Your task to perform on an android device: change keyboard looks Image 0: 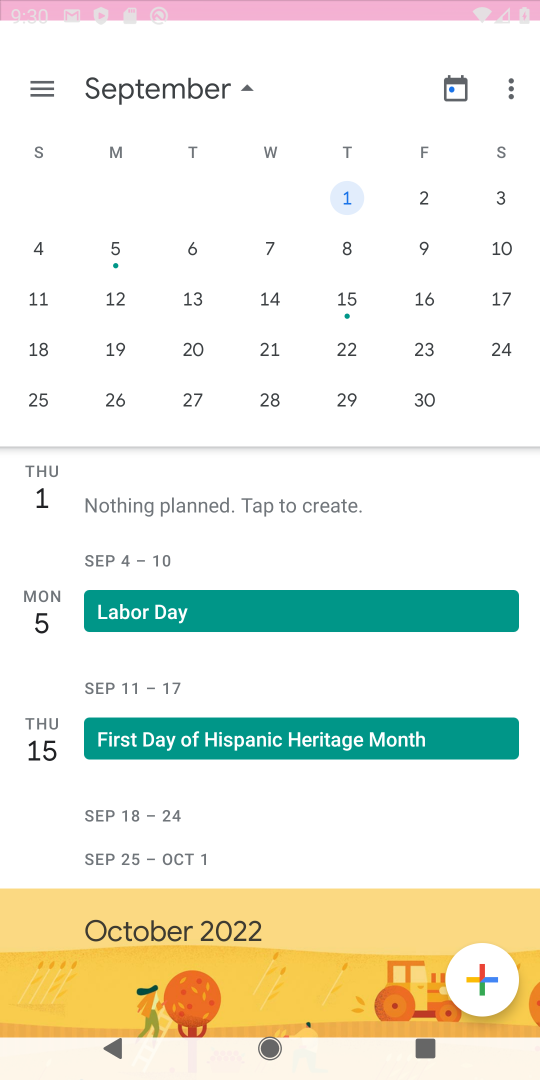
Step 0: press home button
Your task to perform on an android device: change keyboard looks Image 1: 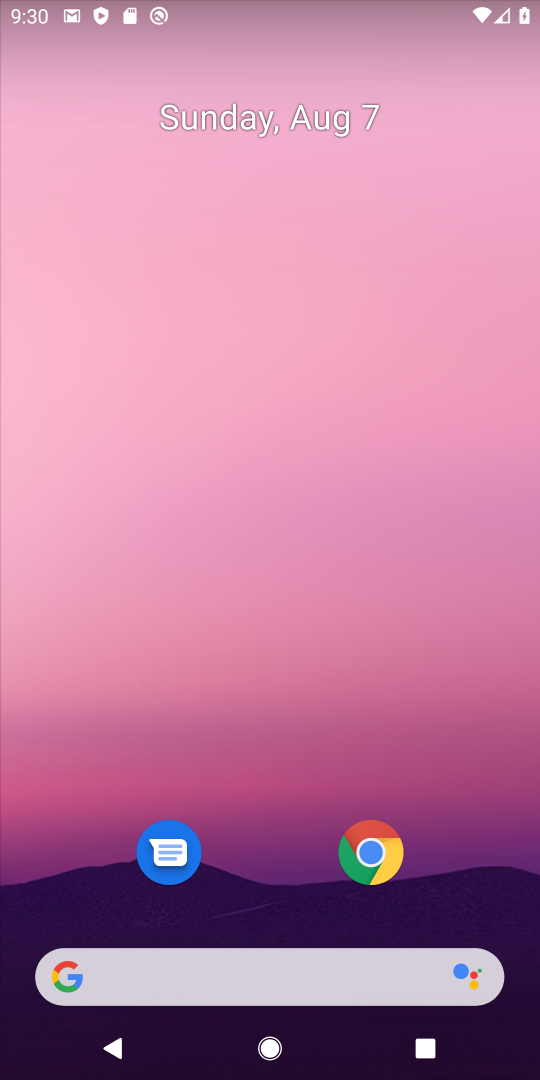
Step 1: drag from (281, 843) to (246, 513)
Your task to perform on an android device: change keyboard looks Image 2: 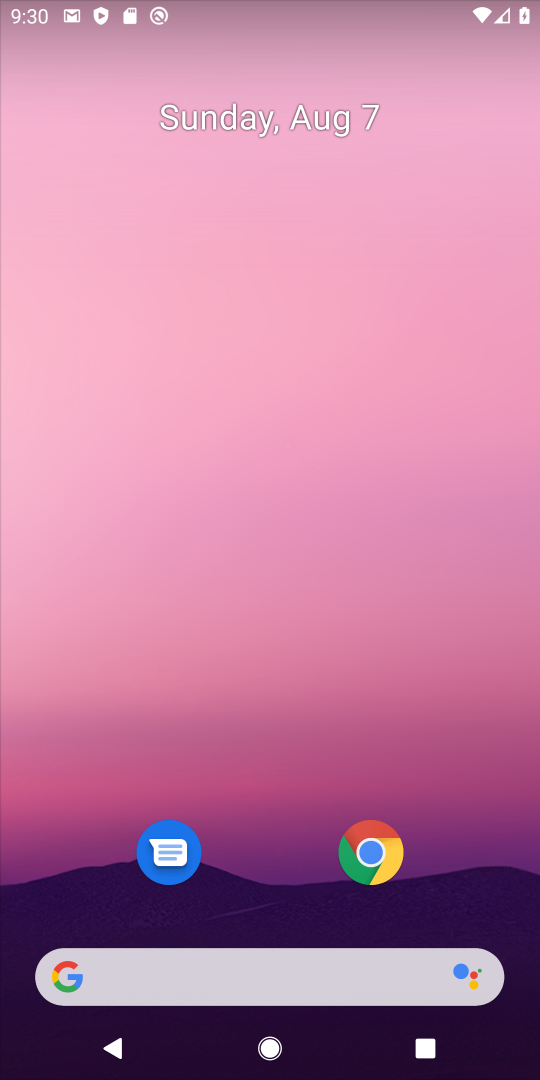
Step 2: drag from (348, 710) to (303, 347)
Your task to perform on an android device: change keyboard looks Image 3: 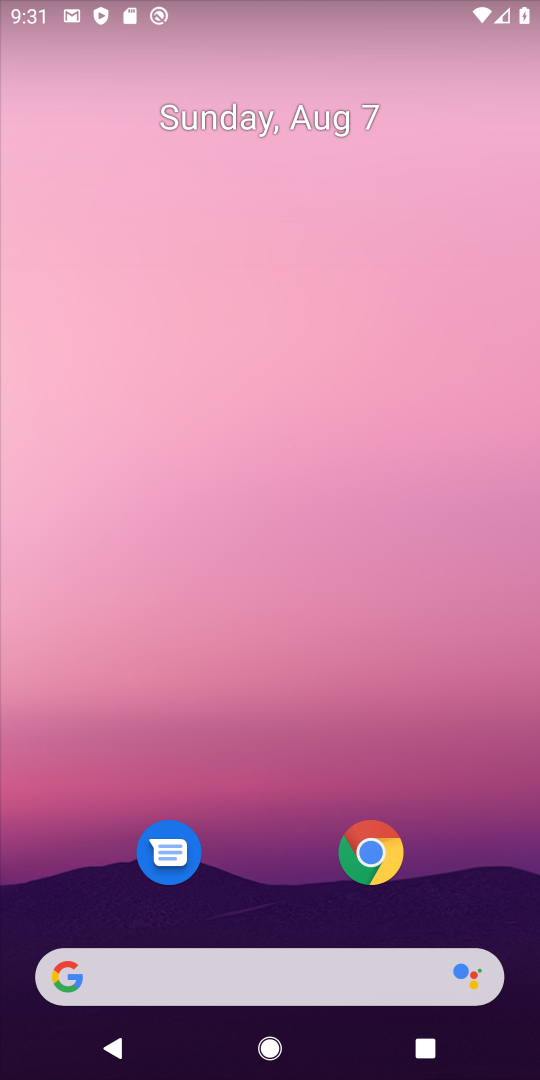
Step 3: drag from (256, 887) to (218, 164)
Your task to perform on an android device: change keyboard looks Image 4: 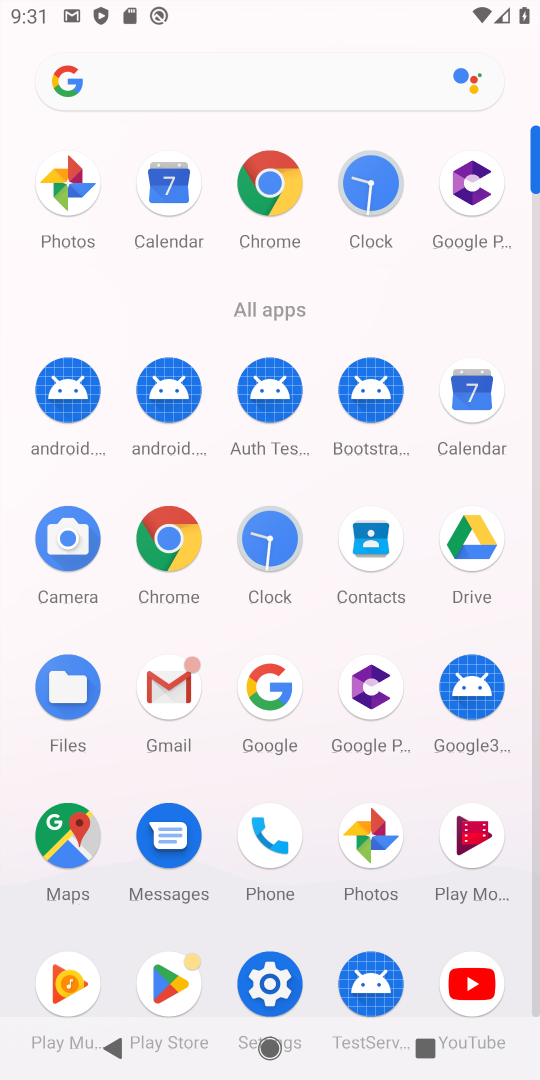
Step 4: click (261, 983)
Your task to perform on an android device: change keyboard looks Image 5: 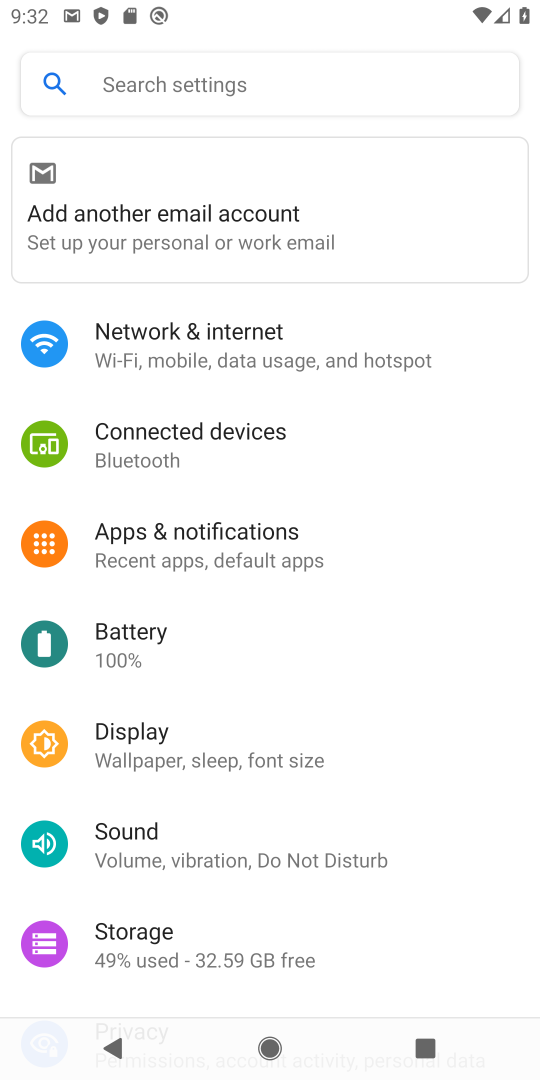
Step 5: drag from (286, 856) to (276, 641)
Your task to perform on an android device: change keyboard looks Image 6: 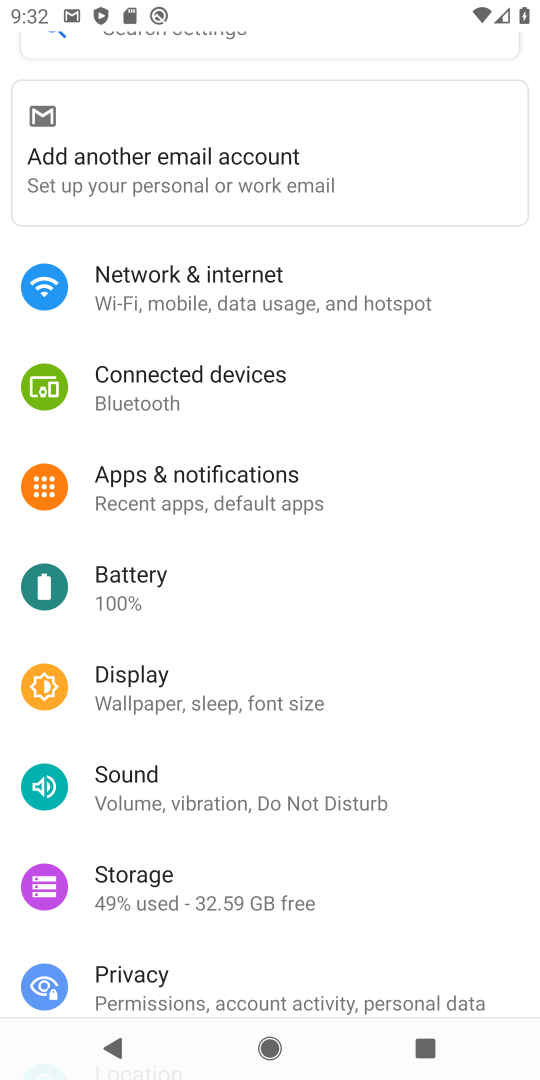
Step 6: drag from (194, 917) to (201, 304)
Your task to perform on an android device: change keyboard looks Image 7: 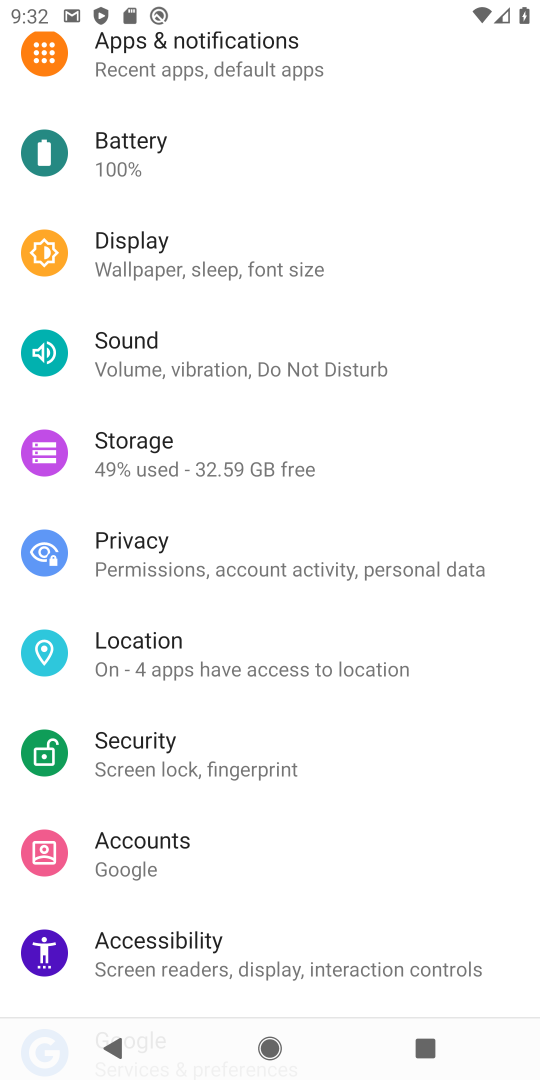
Step 7: drag from (205, 948) to (196, 651)
Your task to perform on an android device: change keyboard looks Image 8: 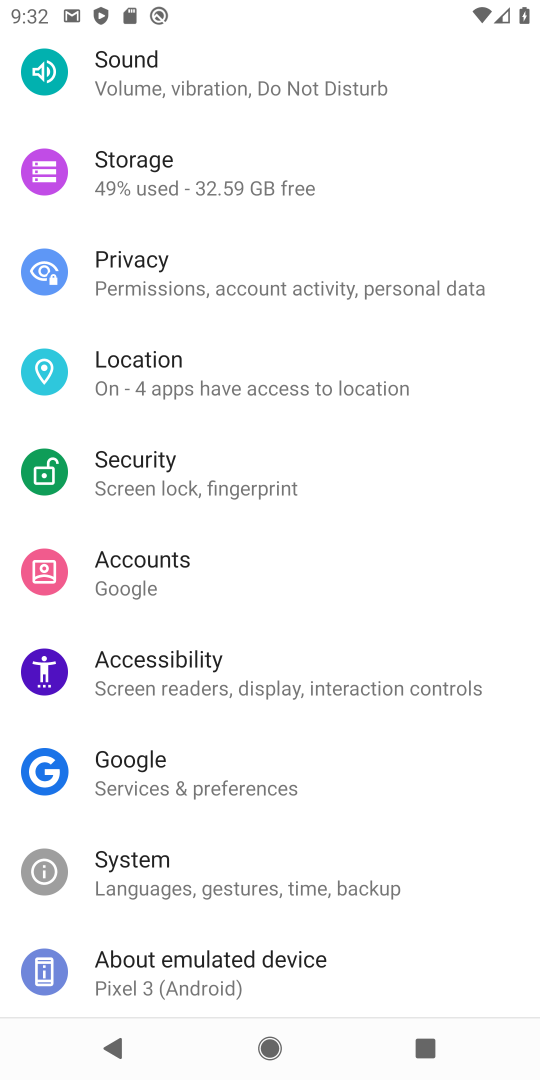
Step 8: drag from (180, 969) to (169, 311)
Your task to perform on an android device: change keyboard looks Image 9: 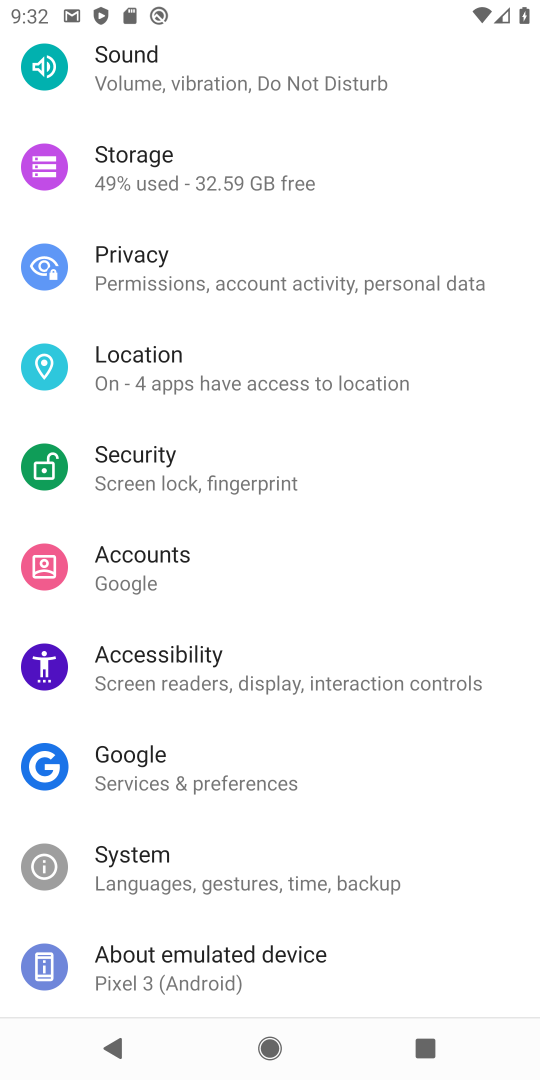
Step 9: click (229, 978)
Your task to perform on an android device: change keyboard looks Image 10: 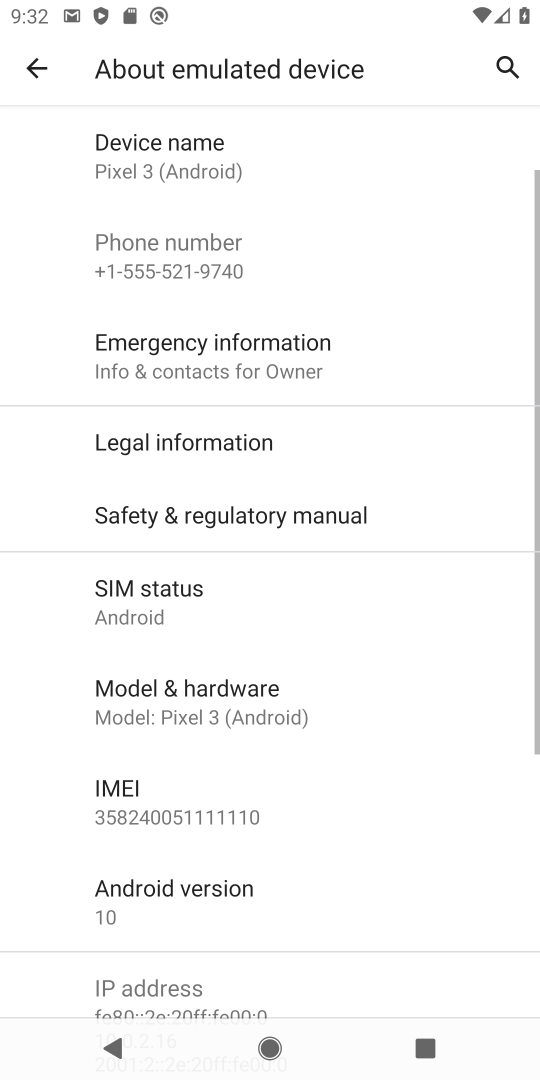
Step 10: press back button
Your task to perform on an android device: change keyboard looks Image 11: 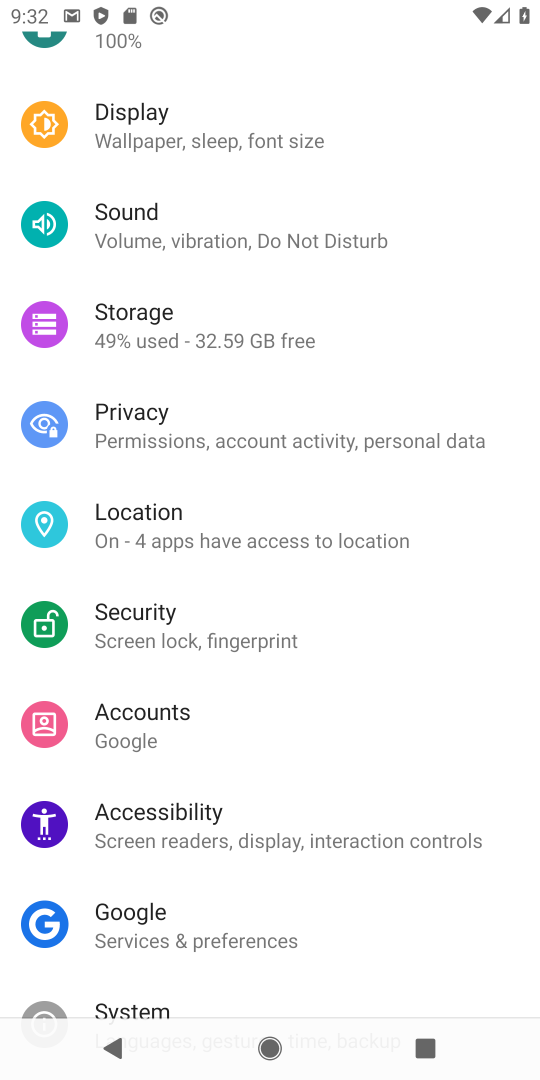
Step 11: drag from (170, 958) to (165, 792)
Your task to perform on an android device: change keyboard looks Image 12: 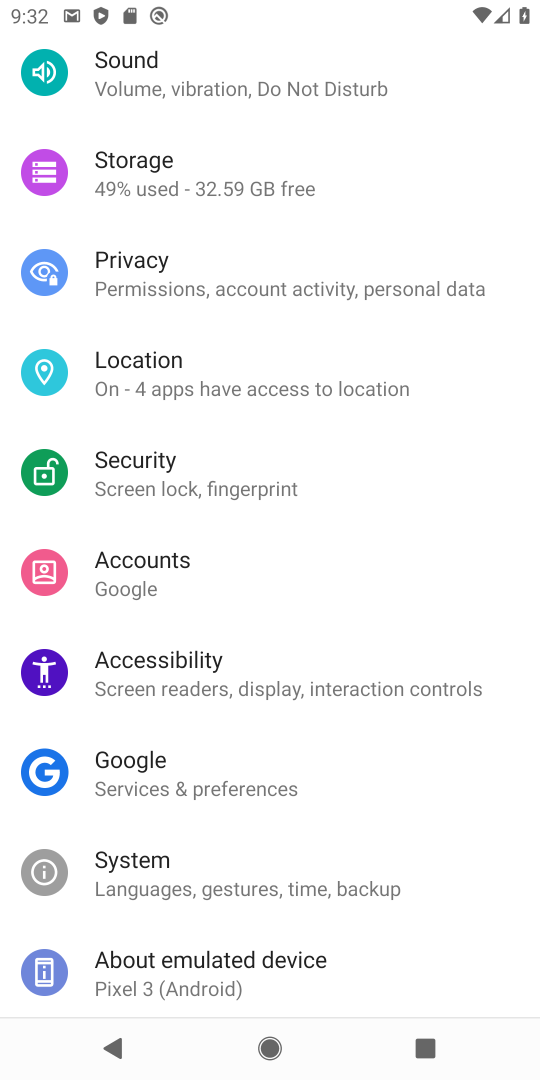
Step 12: click (160, 864)
Your task to perform on an android device: change keyboard looks Image 13: 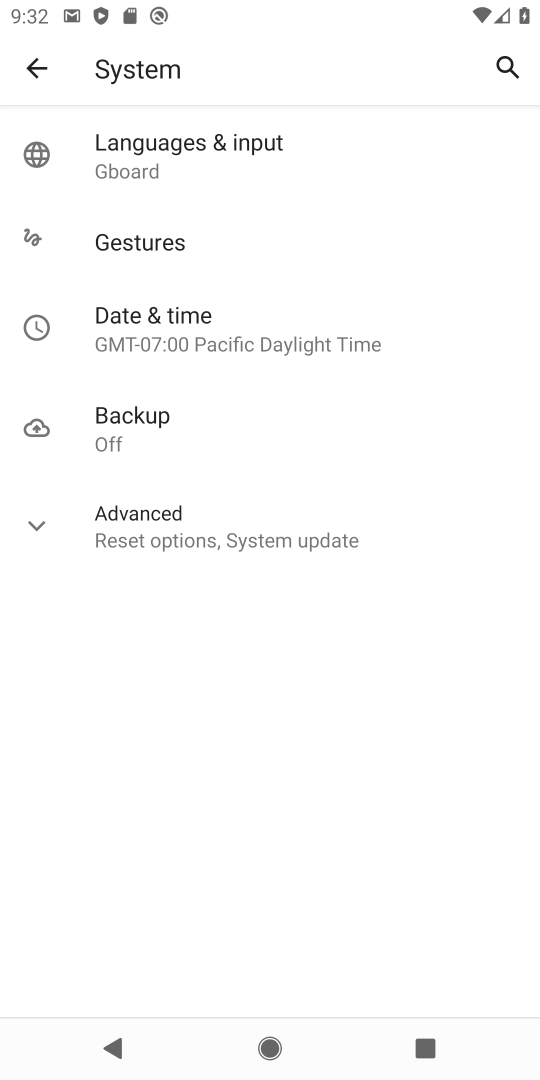
Step 13: click (196, 160)
Your task to perform on an android device: change keyboard looks Image 14: 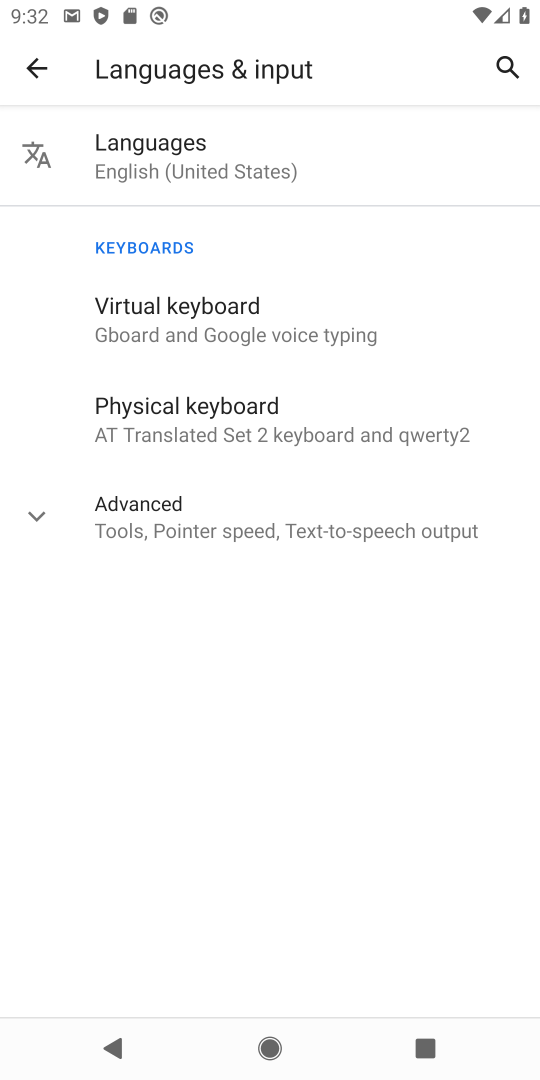
Step 14: click (191, 336)
Your task to perform on an android device: change keyboard looks Image 15: 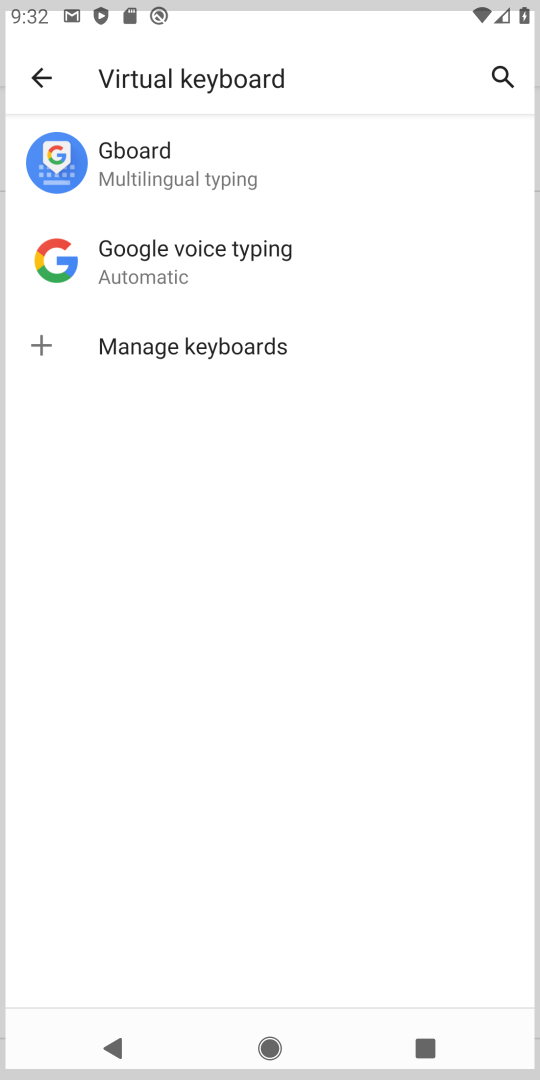
Step 15: click (191, 141)
Your task to perform on an android device: change keyboard looks Image 16: 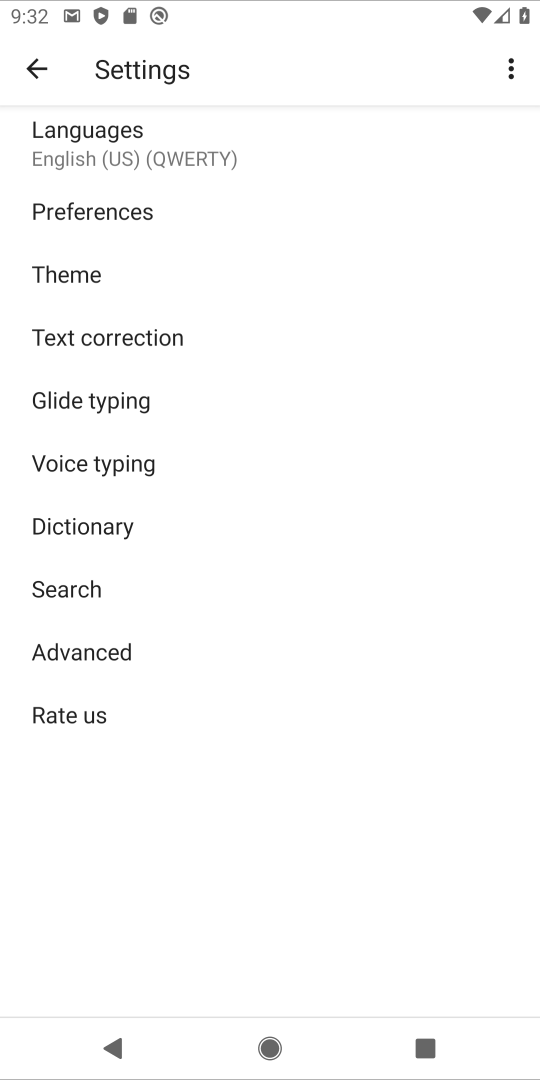
Step 16: click (188, 267)
Your task to perform on an android device: change keyboard looks Image 17: 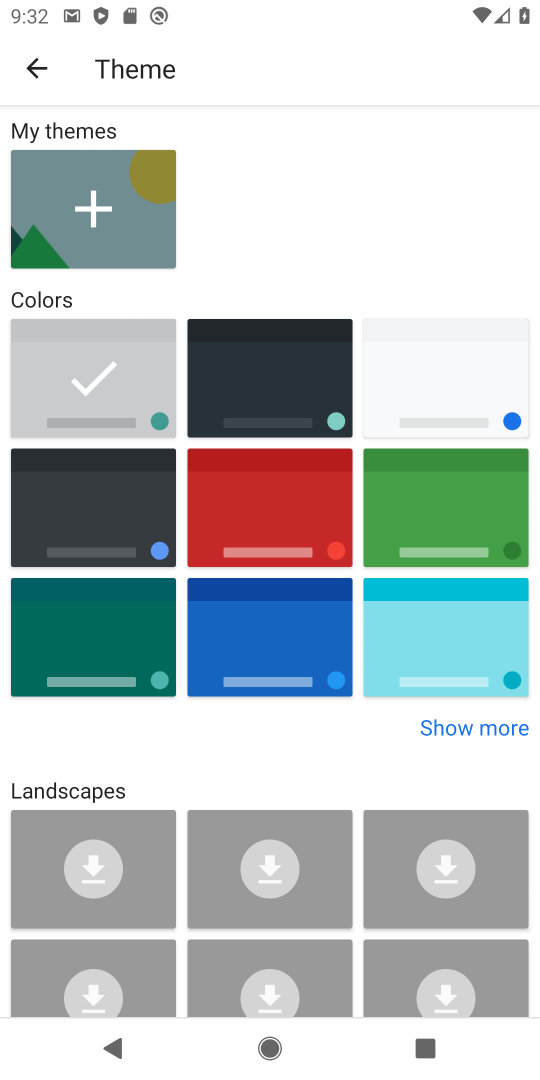
Step 17: click (291, 492)
Your task to perform on an android device: change keyboard looks Image 18: 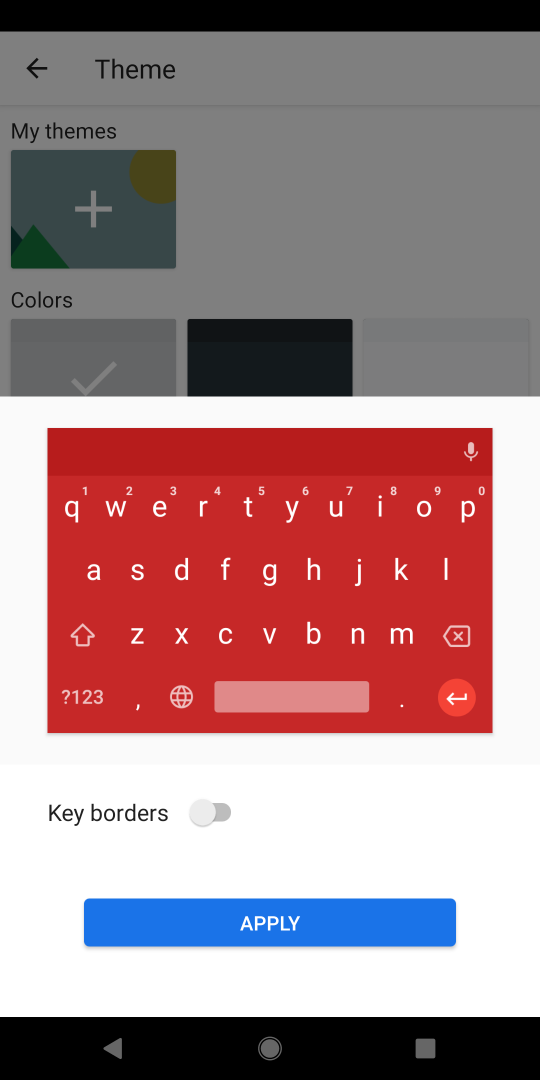
Step 18: click (224, 817)
Your task to perform on an android device: change keyboard looks Image 19: 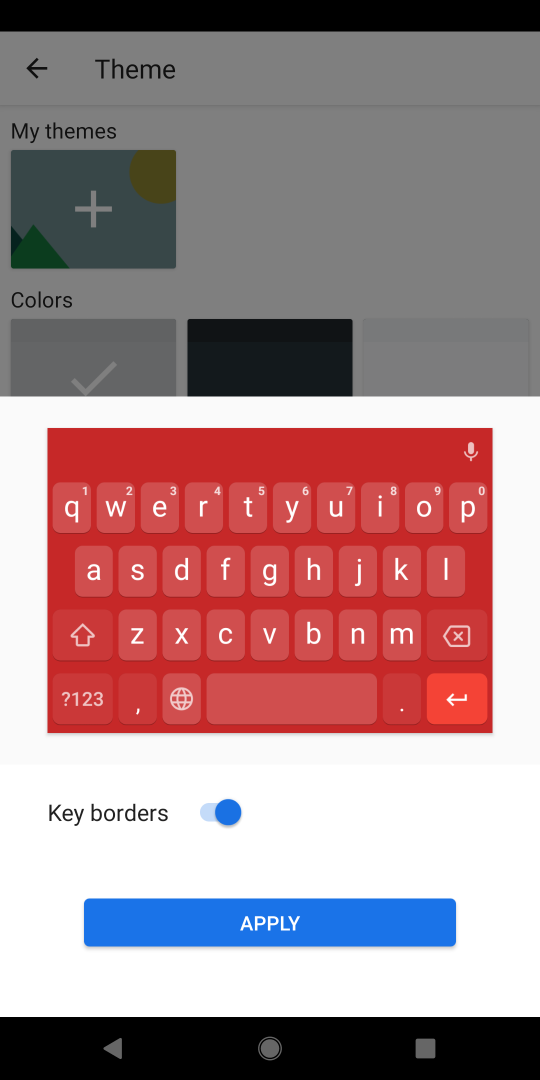
Step 19: click (288, 916)
Your task to perform on an android device: change keyboard looks Image 20: 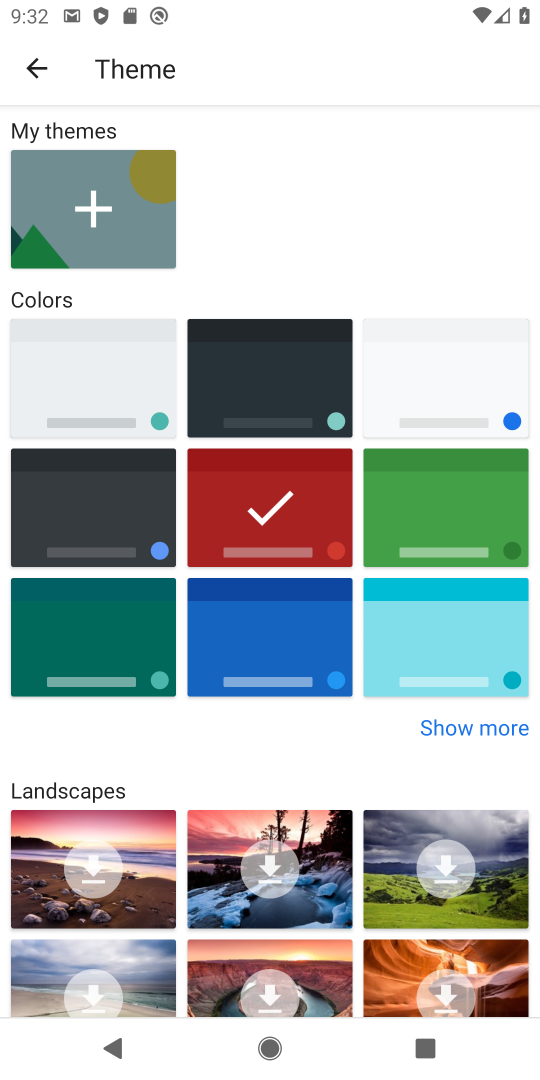
Step 20: task complete